Your task to perform on an android device: find snoozed emails in the gmail app Image 0: 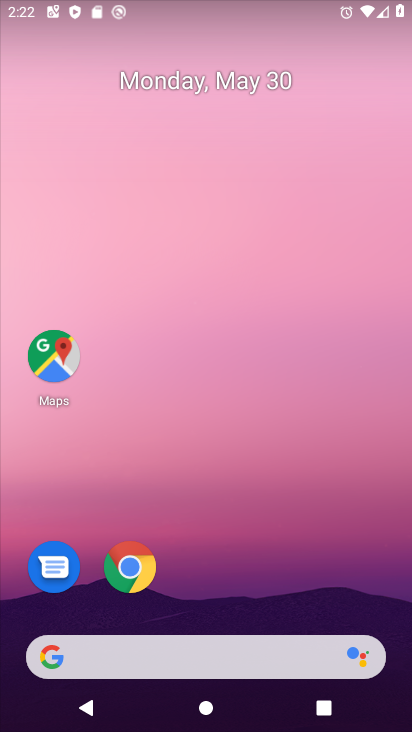
Step 0: drag from (238, 578) to (248, 66)
Your task to perform on an android device: find snoozed emails in the gmail app Image 1: 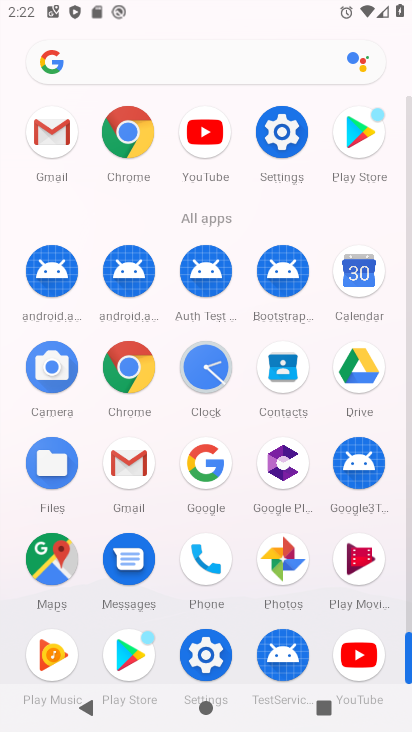
Step 1: click (119, 476)
Your task to perform on an android device: find snoozed emails in the gmail app Image 2: 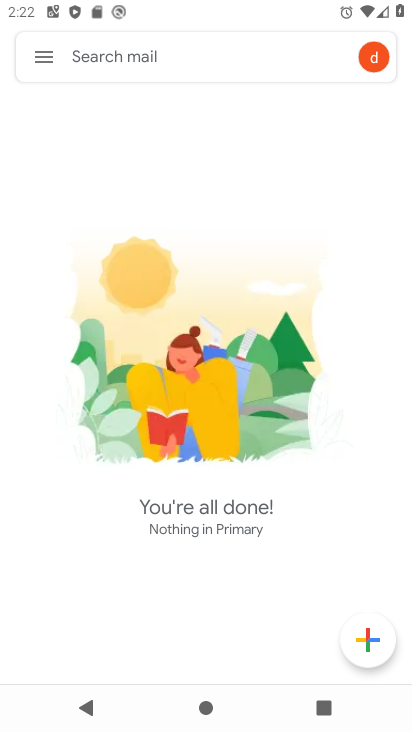
Step 2: click (52, 60)
Your task to perform on an android device: find snoozed emails in the gmail app Image 3: 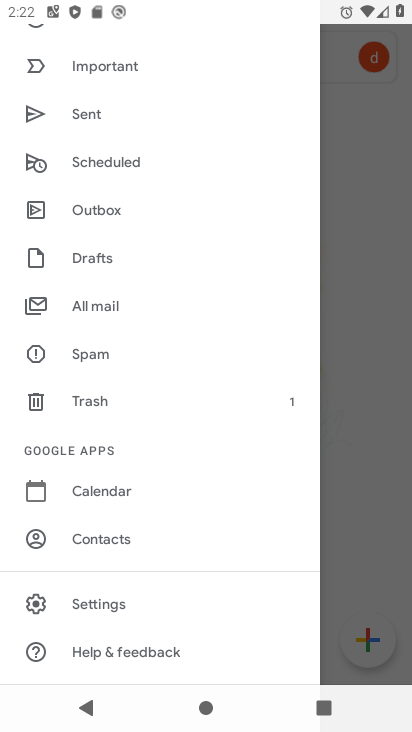
Step 3: drag from (121, 180) to (128, 541)
Your task to perform on an android device: find snoozed emails in the gmail app Image 4: 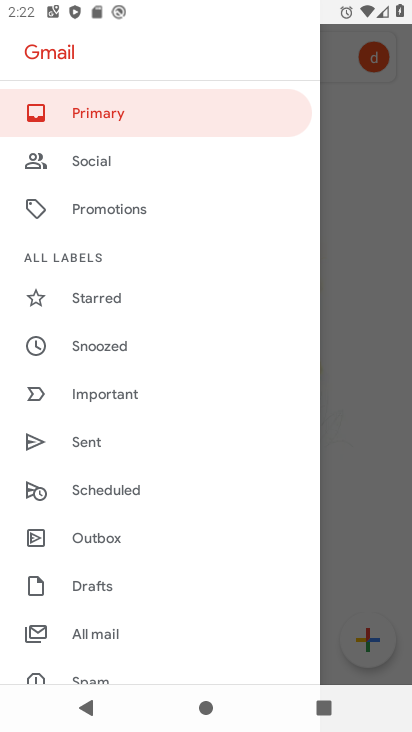
Step 4: click (119, 349)
Your task to perform on an android device: find snoozed emails in the gmail app Image 5: 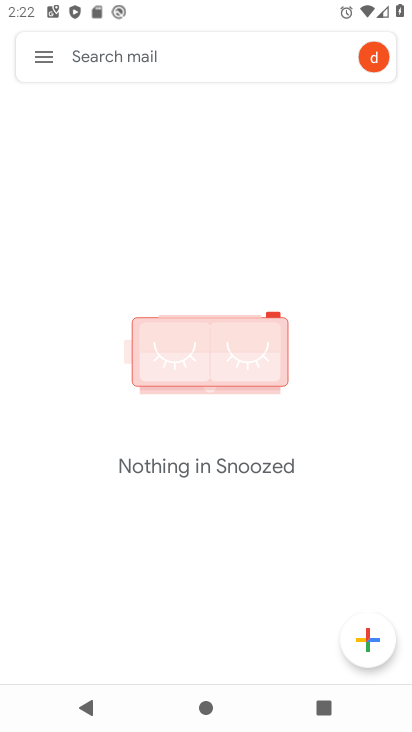
Step 5: task complete